Your task to perform on an android device: change the clock style Image 0: 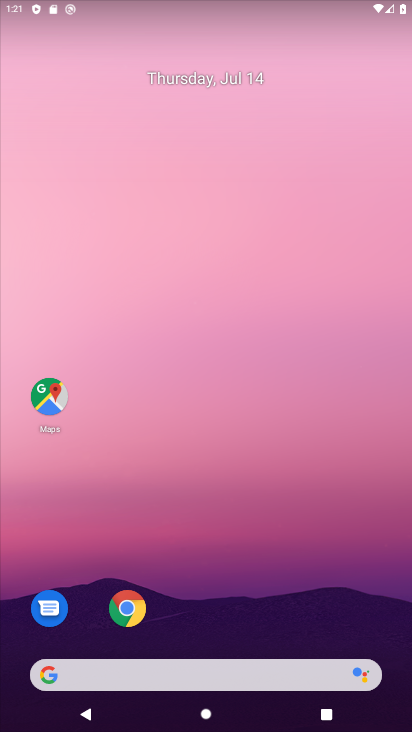
Step 0: drag from (209, 230) to (231, 124)
Your task to perform on an android device: change the clock style Image 1: 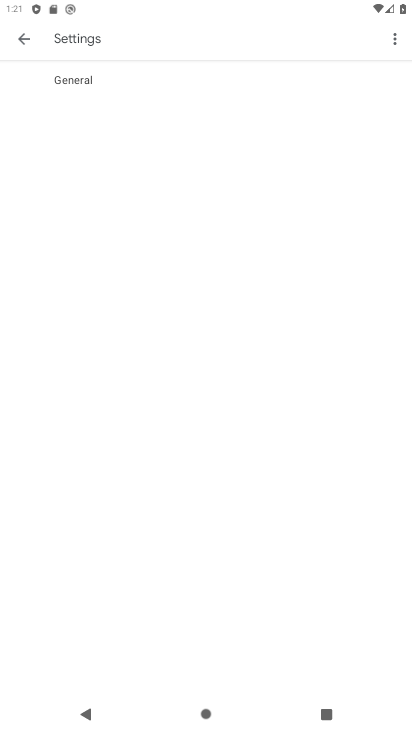
Step 1: press home button
Your task to perform on an android device: change the clock style Image 2: 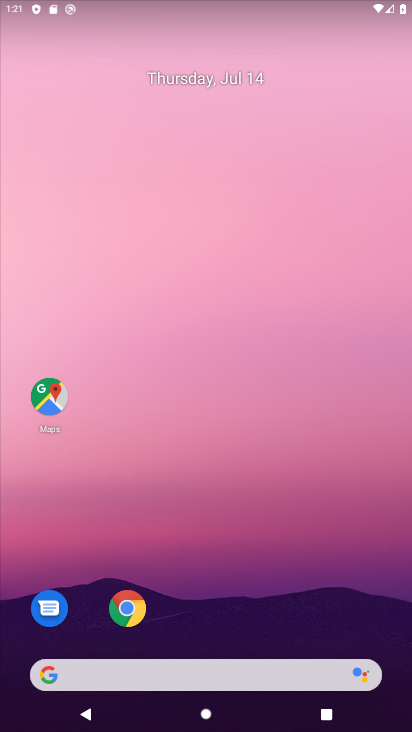
Step 2: drag from (191, 635) to (203, 313)
Your task to perform on an android device: change the clock style Image 3: 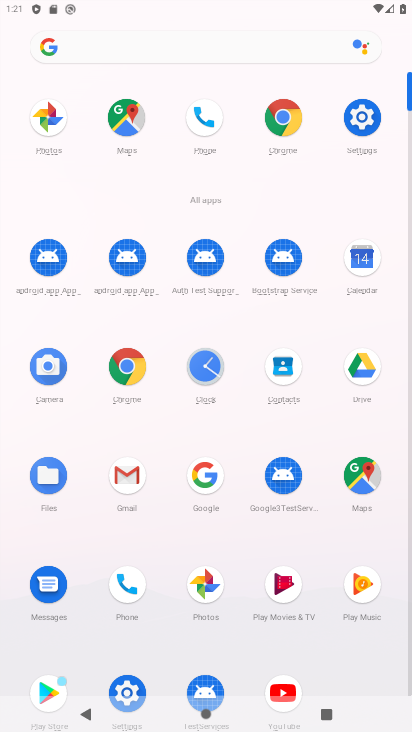
Step 3: click (197, 372)
Your task to perform on an android device: change the clock style Image 4: 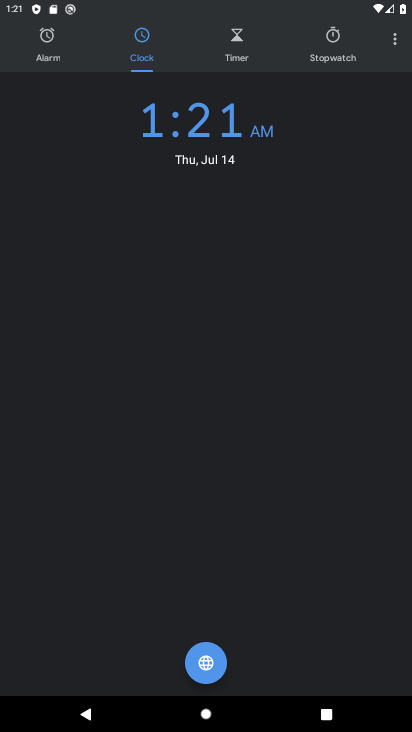
Step 4: click (394, 41)
Your task to perform on an android device: change the clock style Image 5: 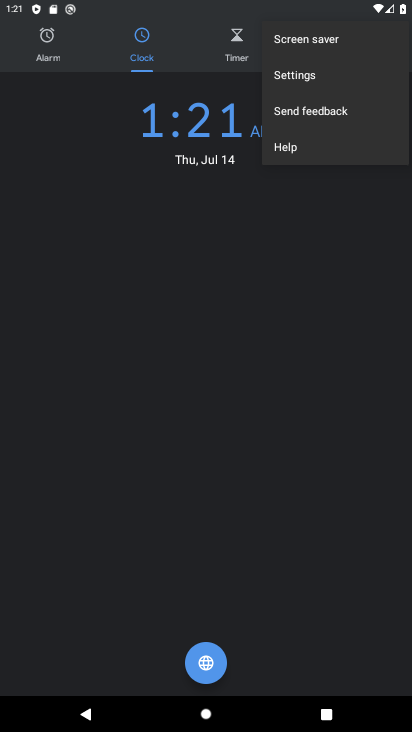
Step 5: click (299, 84)
Your task to perform on an android device: change the clock style Image 6: 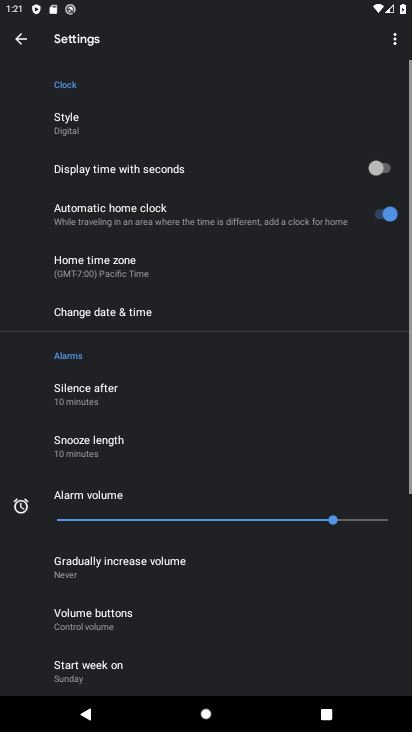
Step 6: click (77, 125)
Your task to perform on an android device: change the clock style Image 7: 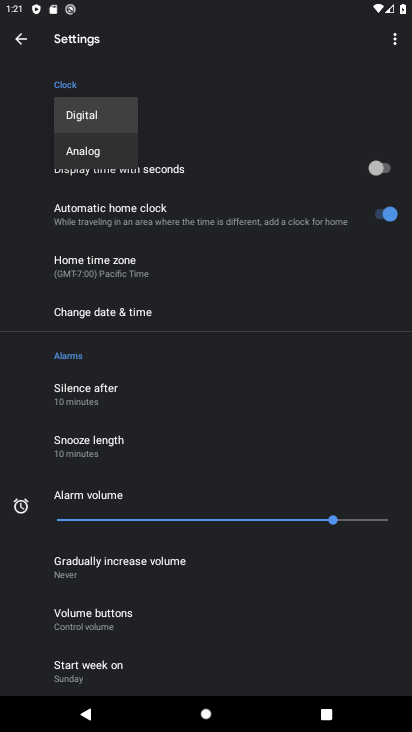
Step 7: click (109, 153)
Your task to perform on an android device: change the clock style Image 8: 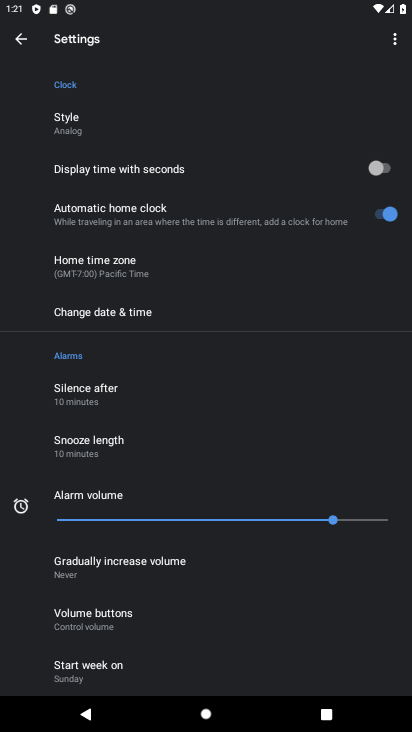
Step 8: task complete